Your task to perform on an android device: Go to privacy settings Image 0: 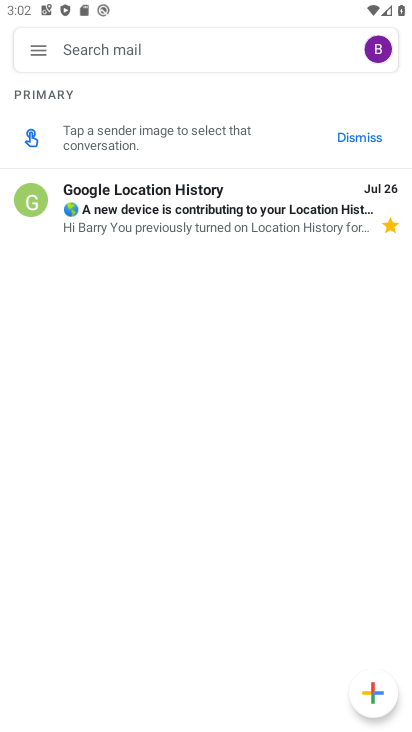
Step 0: press back button
Your task to perform on an android device: Go to privacy settings Image 1: 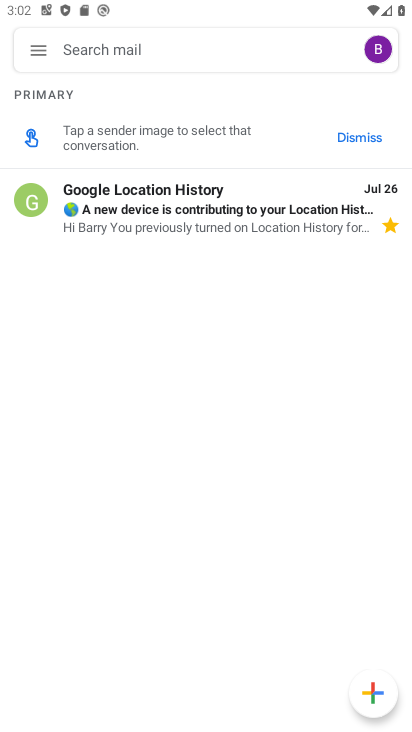
Step 1: press back button
Your task to perform on an android device: Go to privacy settings Image 2: 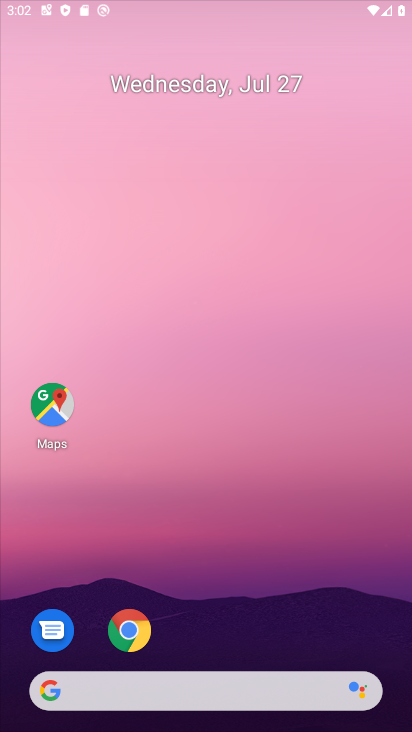
Step 2: press back button
Your task to perform on an android device: Go to privacy settings Image 3: 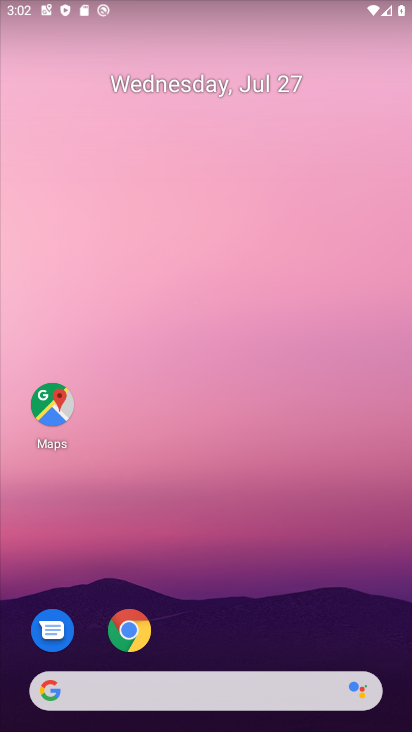
Step 3: drag from (288, 557) to (186, 114)
Your task to perform on an android device: Go to privacy settings Image 4: 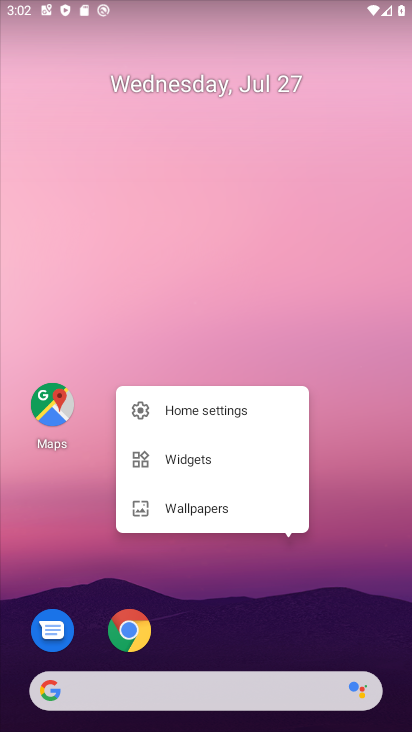
Step 4: drag from (251, 200) to (242, 144)
Your task to perform on an android device: Go to privacy settings Image 5: 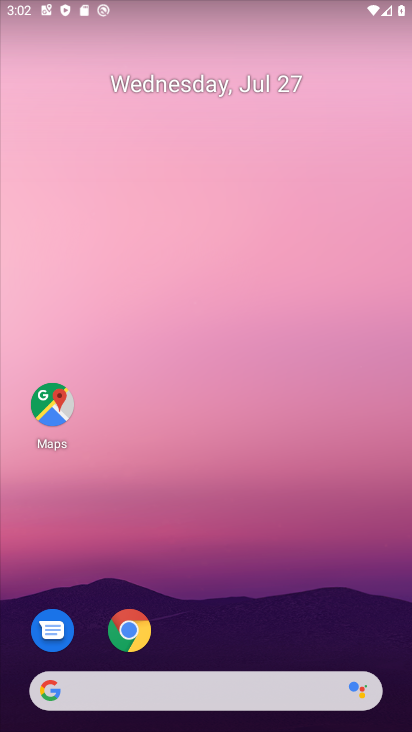
Step 5: drag from (308, 450) to (235, 132)
Your task to perform on an android device: Go to privacy settings Image 6: 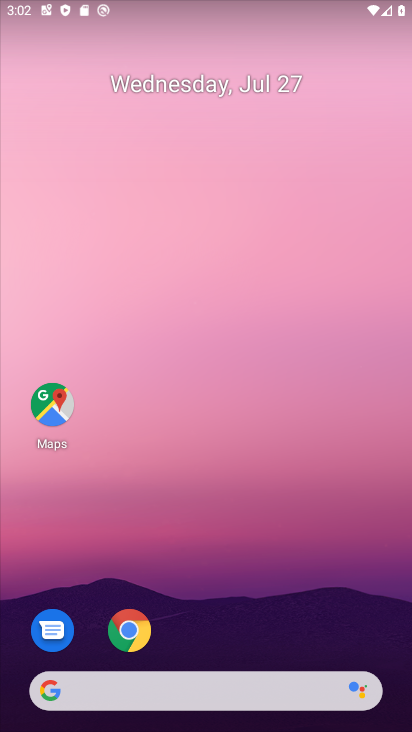
Step 6: drag from (257, 349) to (207, 84)
Your task to perform on an android device: Go to privacy settings Image 7: 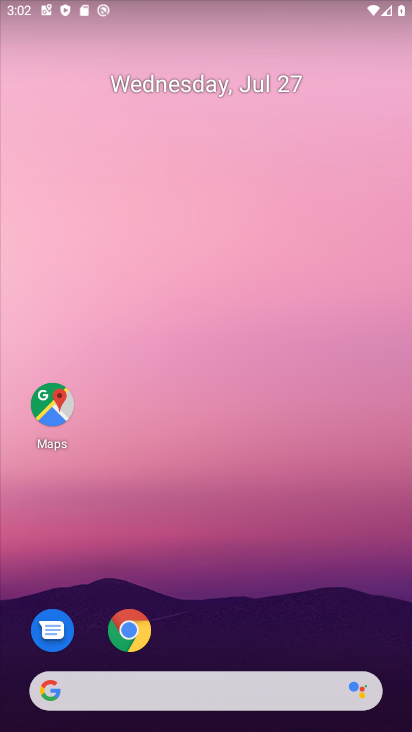
Step 7: drag from (213, 534) to (167, 268)
Your task to perform on an android device: Go to privacy settings Image 8: 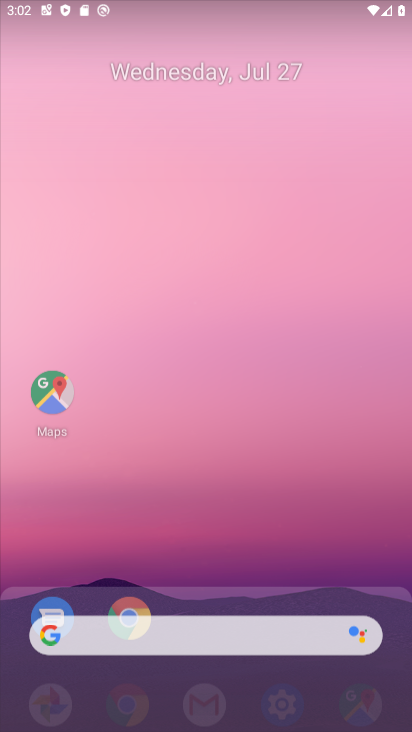
Step 8: drag from (173, 389) to (196, 25)
Your task to perform on an android device: Go to privacy settings Image 9: 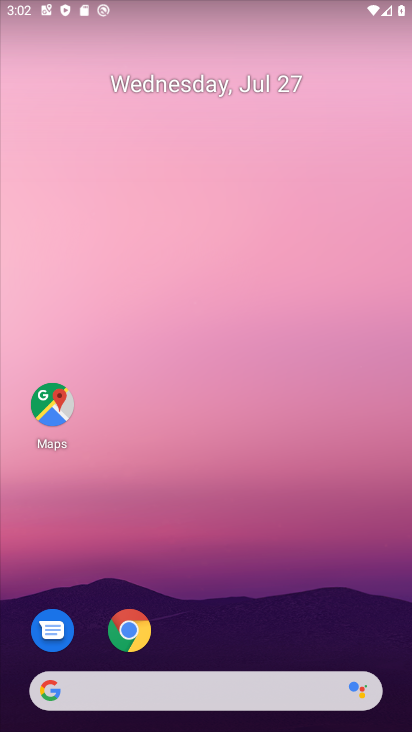
Step 9: drag from (179, 430) to (147, 222)
Your task to perform on an android device: Go to privacy settings Image 10: 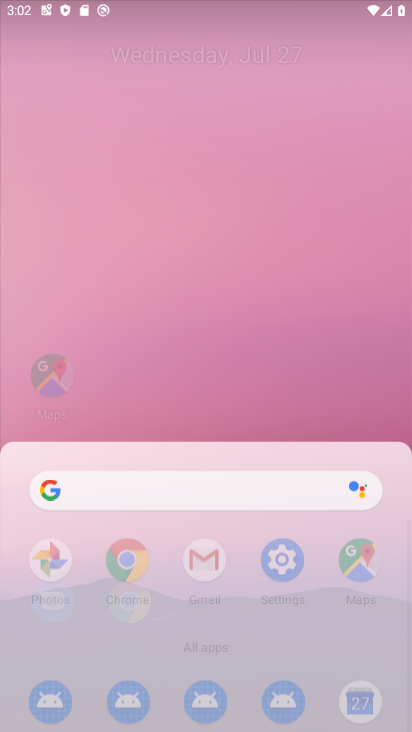
Step 10: drag from (215, 424) to (167, 150)
Your task to perform on an android device: Go to privacy settings Image 11: 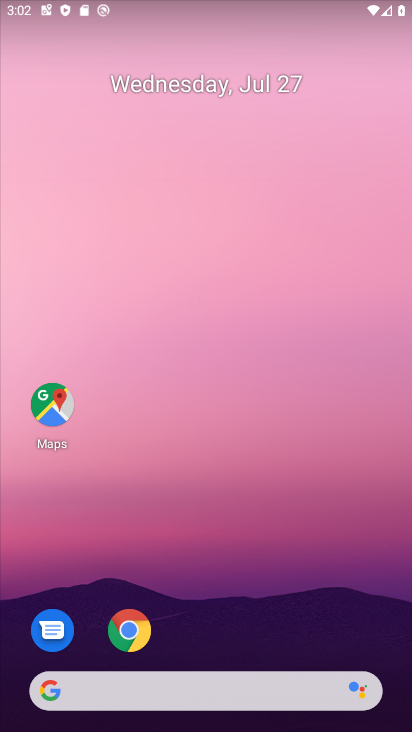
Step 11: drag from (270, 538) to (178, 207)
Your task to perform on an android device: Go to privacy settings Image 12: 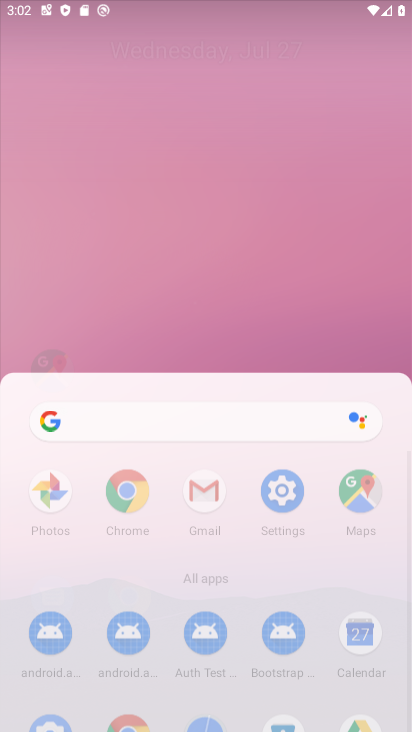
Step 12: drag from (220, 537) to (208, 286)
Your task to perform on an android device: Go to privacy settings Image 13: 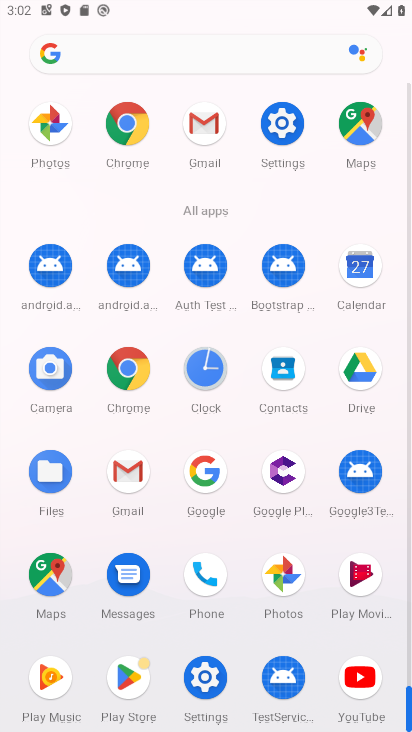
Step 13: click (204, 671)
Your task to perform on an android device: Go to privacy settings Image 14: 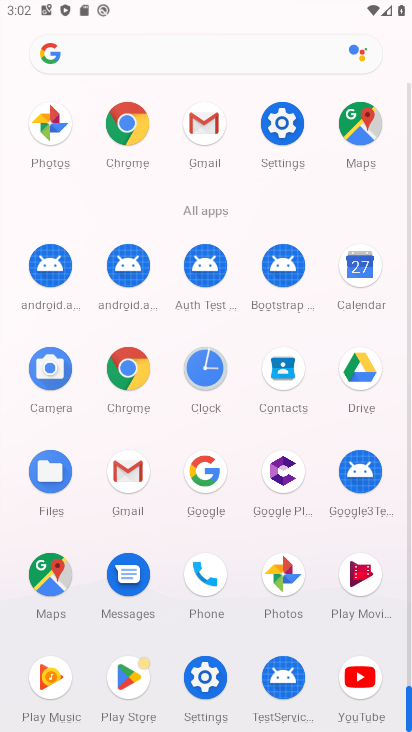
Step 14: click (204, 671)
Your task to perform on an android device: Go to privacy settings Image 15: 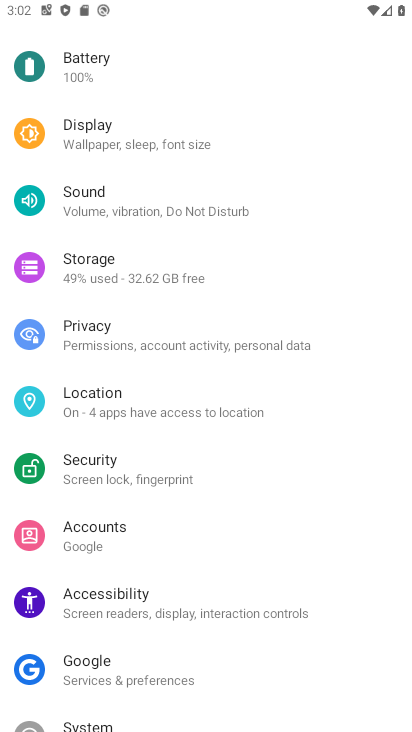
Step 15: click (208, 673)
Your task to perform on an android device: Go to privacy settings Image 16: 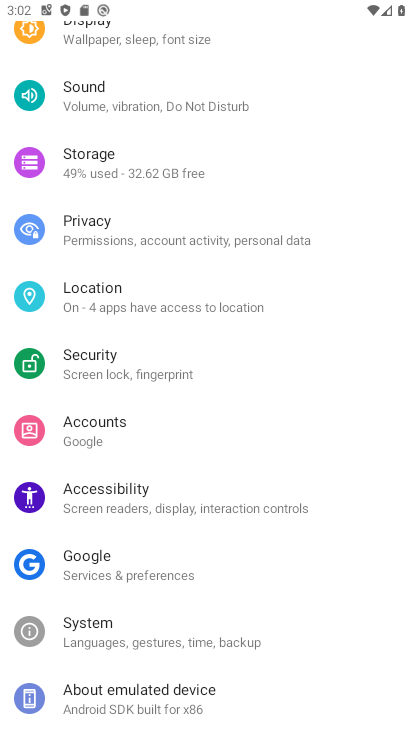
Step 16: click (208, 673)
Your task to perform on an android device: Go to privacy settings Image 17: 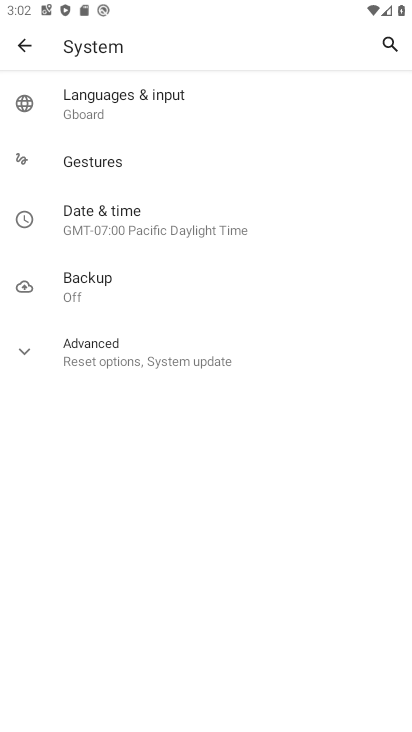
Step 17: click (25, 45)
Your task to perform on an android device: Go to privacy settings Image 18: 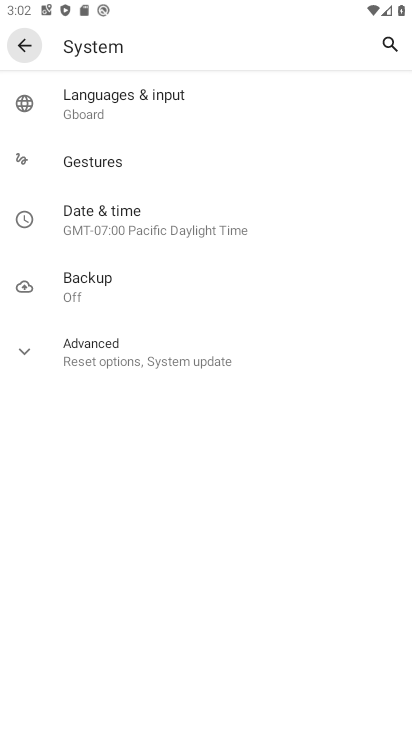
Step 18: click (25, 39)
Your task to perform on an android device: Go to privacy settings Image 19: 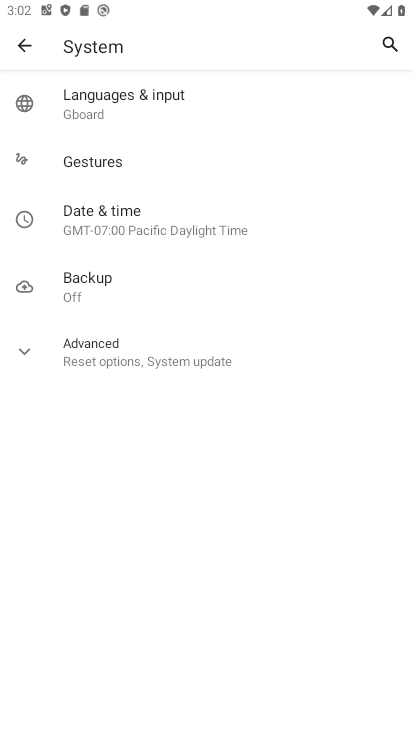
Step 19: click (25, 39)
Your task to perform on an android device: Go to privacy settings Image 20: 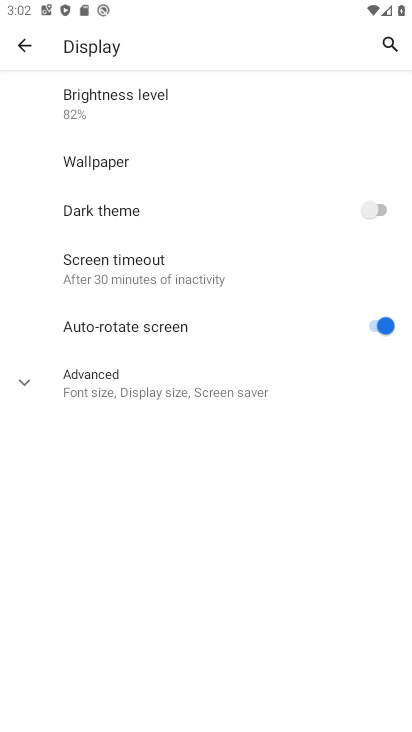
Step 20: click (29, 39)
Your task to perform on an android device: Go to privacy settings Image 21: 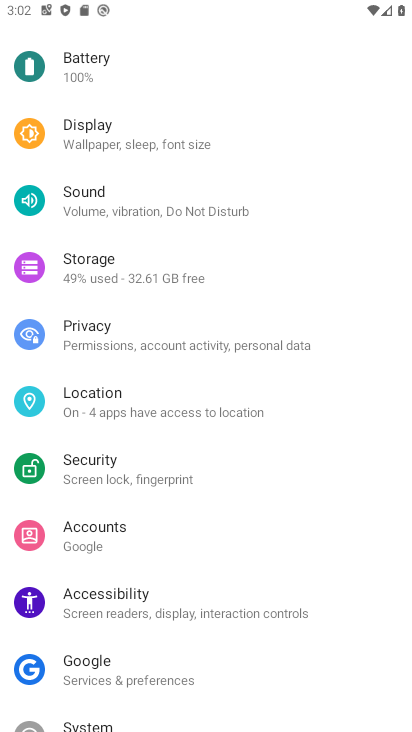
Step 21: click (91, 332)
Your task to perform on an android device: Go to privacy settings Image 22: 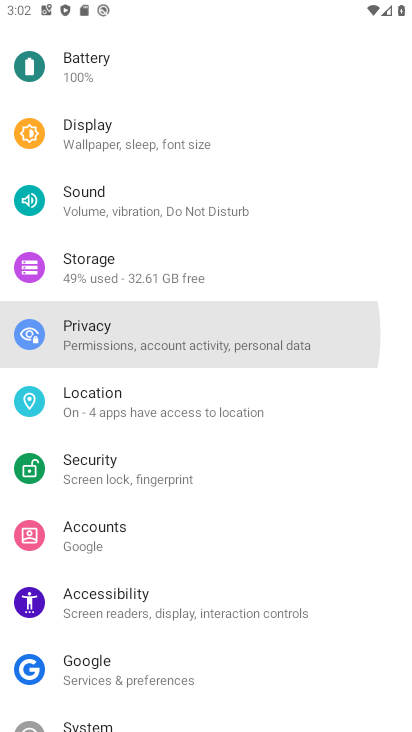
Step 22: click (91, 332)
Your task to perform on an android device: Go to privacy settings Image 23: 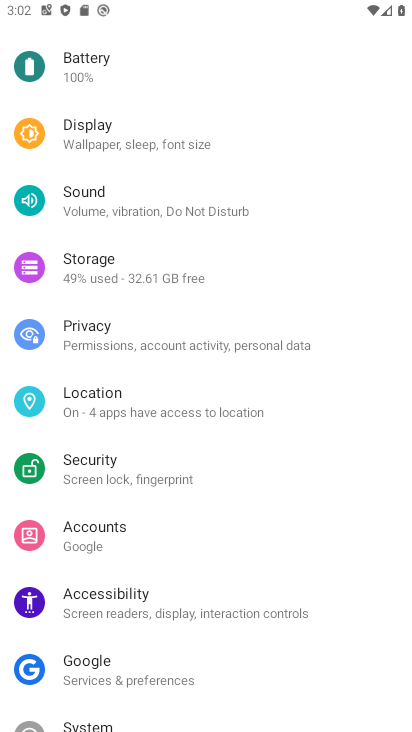
Step 23: click (92, 331)
Your task to perform on an android device: Go to privacy settings Image 24: 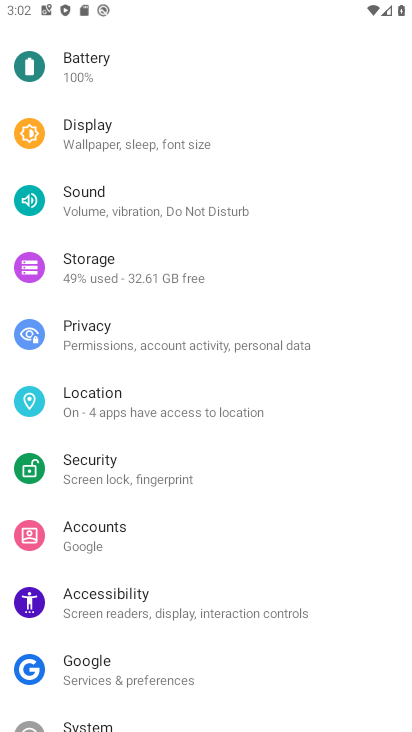
Step 24: click (98, 335)
Your task to perform on an android device: Go to privacy settings Image 25: 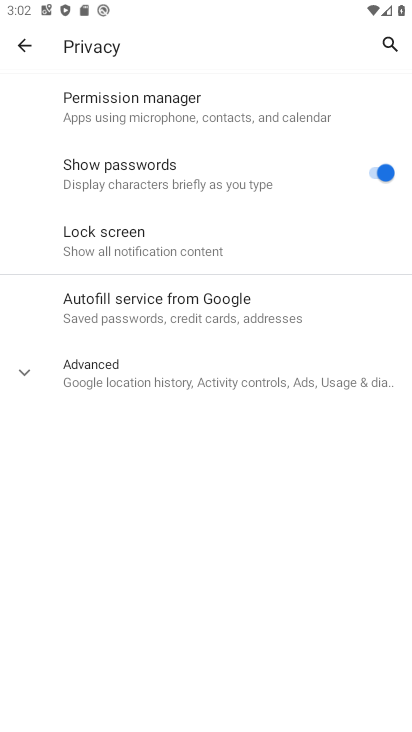
Step 25: task complete